Your task to perform on an android device: turn off sleep mode Image 0: 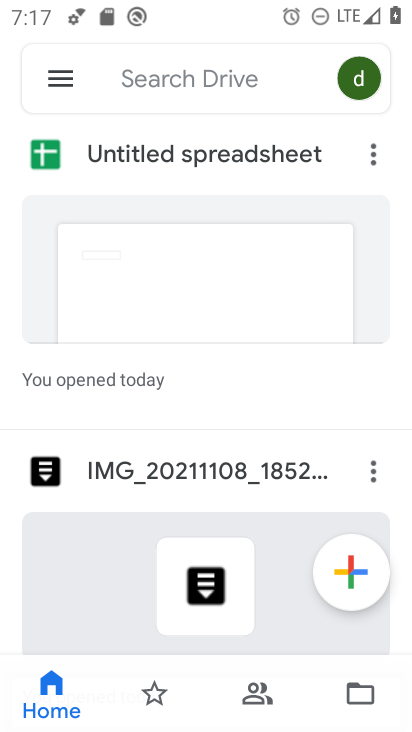
Step 0: press home button
Your task to perform on an android device: turn off sleep mode Image 1: 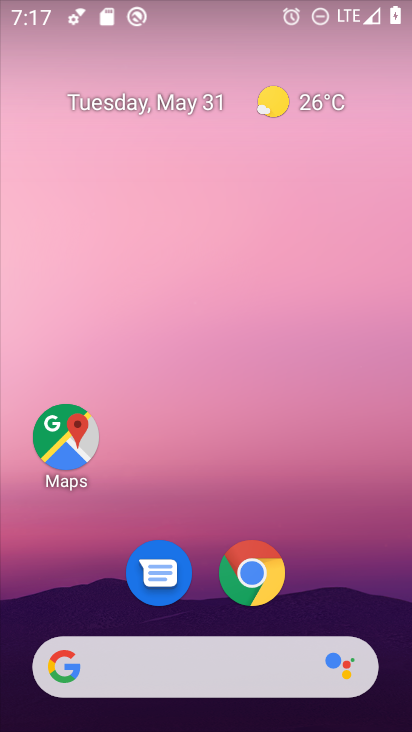
Step 1: drag from (402, 658) to (282, 21)
Your task to perform on an android device: turn off sleep mode Image 2: 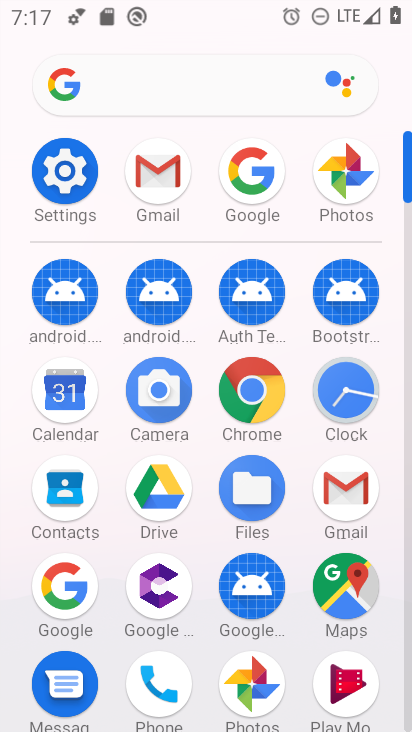
Step 2: click (52, 192)
Your task to perform on an android device: turn off sleep mode Image 3: 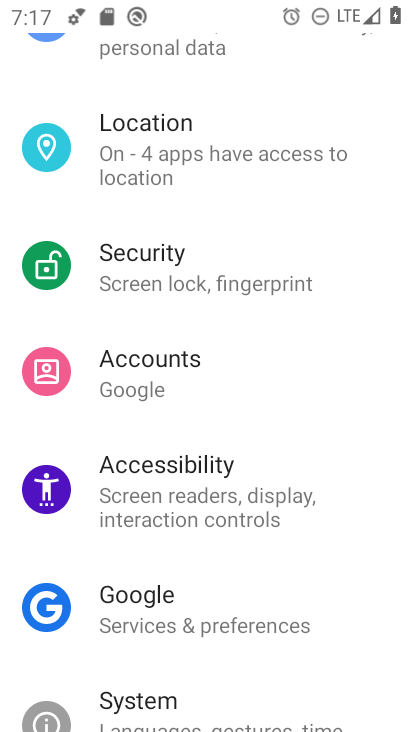
Step 3: task complete